Your task to perform on an android device: toggle notifications settings in the gmail app Image 0: 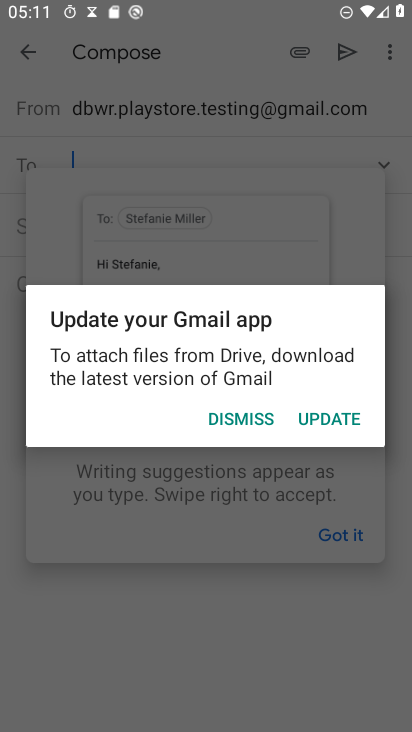
Step 0: press home button
Your task to perform on an android device: toggle notifications settings in the gmail app Image 1: 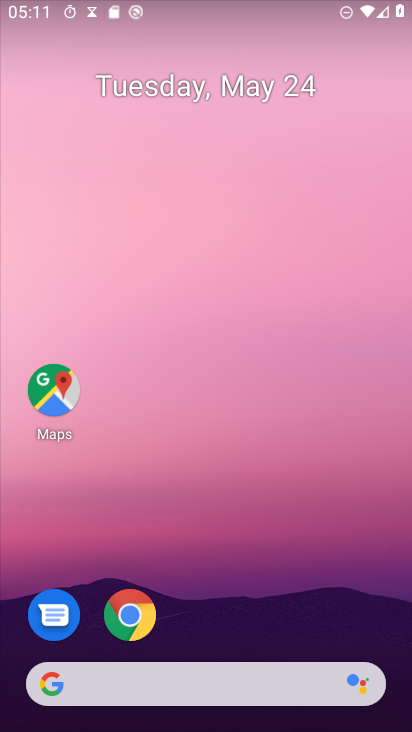
Step 1: drag from (212, 619) to (308, 115)
Your task to perform on an android device: toggle notifications settings in the gmail app Image 2: 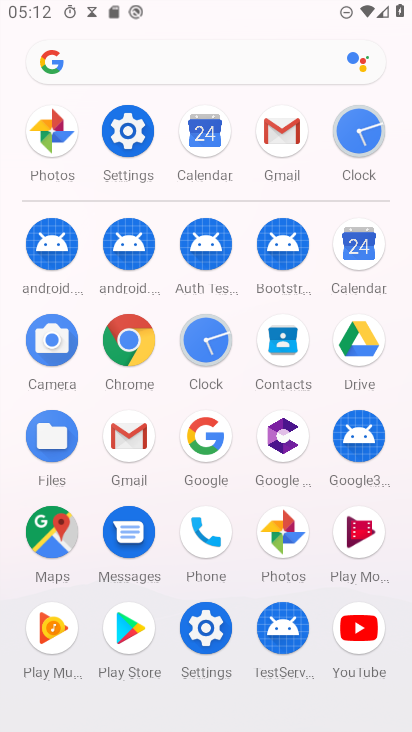
Step 2: click (119, 433)
Your task to perform on an android device: toggle notifications settings in the gmail app Image 3: 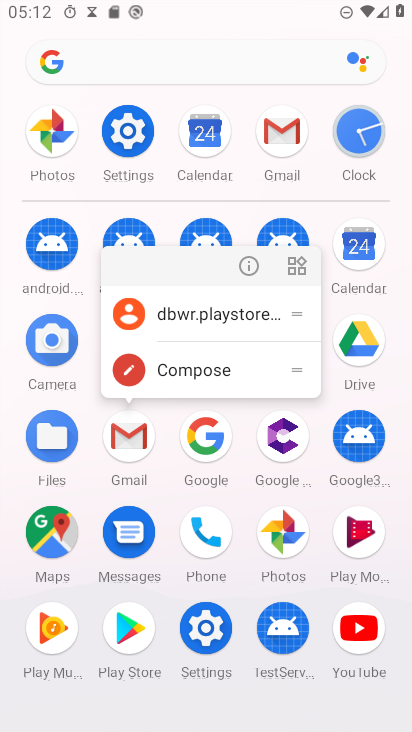
Step 3: click (246, 270)
Your task to perform on an android device: toggle notifications settings in the gmail app Image 4: 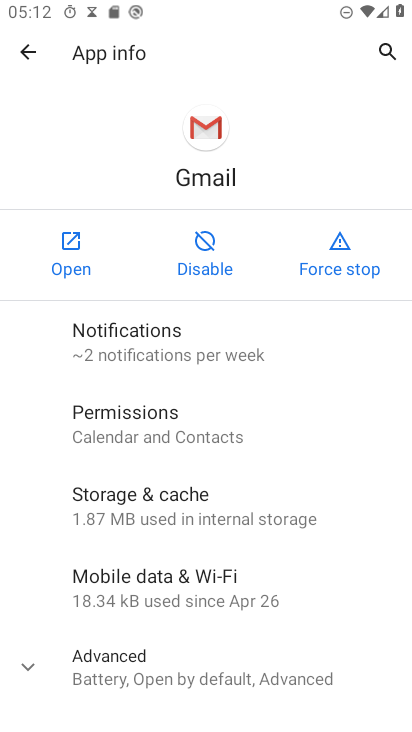
Step 4: click (123, 331)
Your task to perform on an android device: toggle notifications settings in the gmail app Image 5: 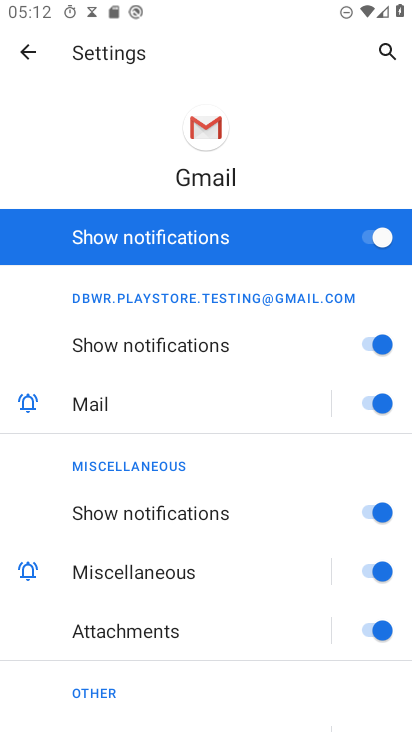
Step 5: click (375, 242)
Your task to perform on an android device: toggle notifications settings in the gmail app Image 6: 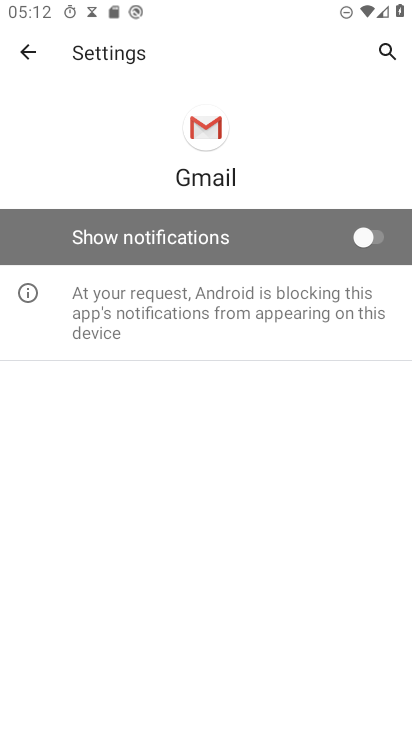
Step 6: task complete